Your task to perform on an android device: set the stopwatch Image 0: 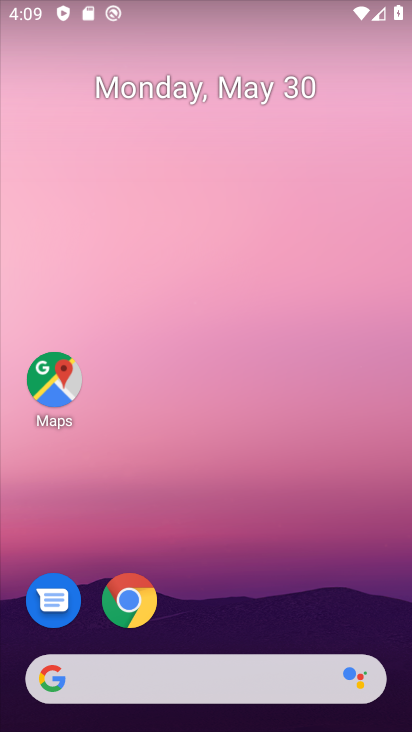
Step 0: drag from (274, 636) to (191, 265)
Your task to perform on an android device: set the stopwatch Image 1: 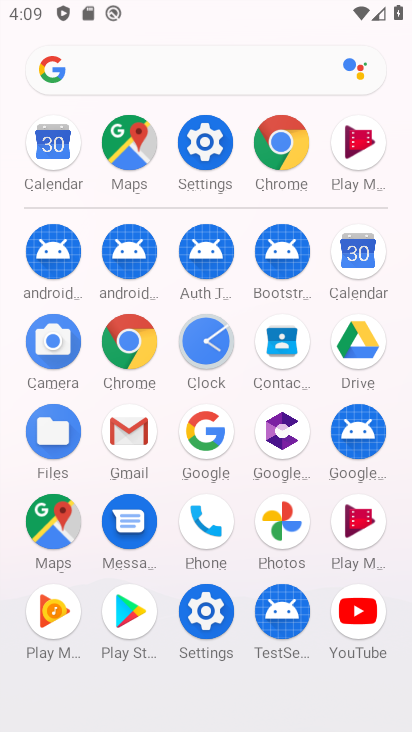
Step 1: click (219, 362)
Your task to perform on an android device: set the stopwatch Image 2: 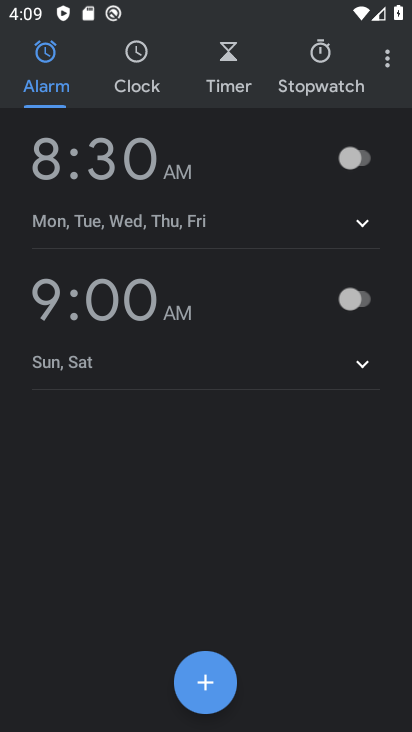
Step 2: click (328, 68)
Your task to perform on an android device: set the stopwatch Image 3: 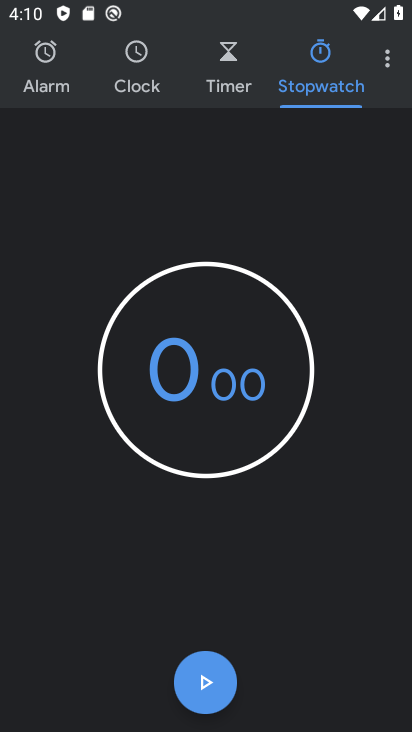
Step 3: type "7"
Your task to perform on an android device: set the stopwatch Image 4: 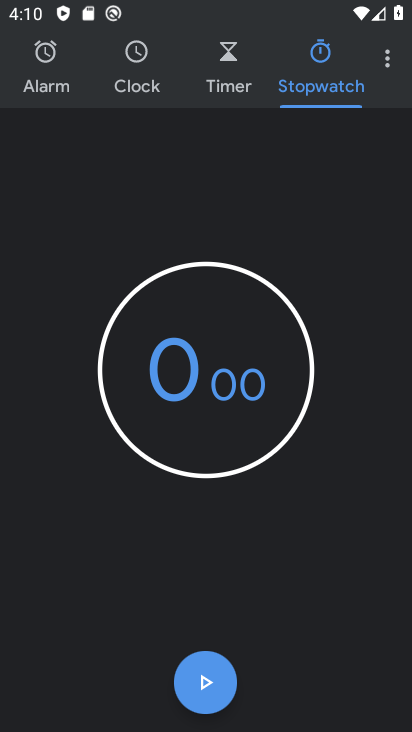
Step 4: click (189, 684)
Your task to perform on an android device: set the stopwatch Image 5: 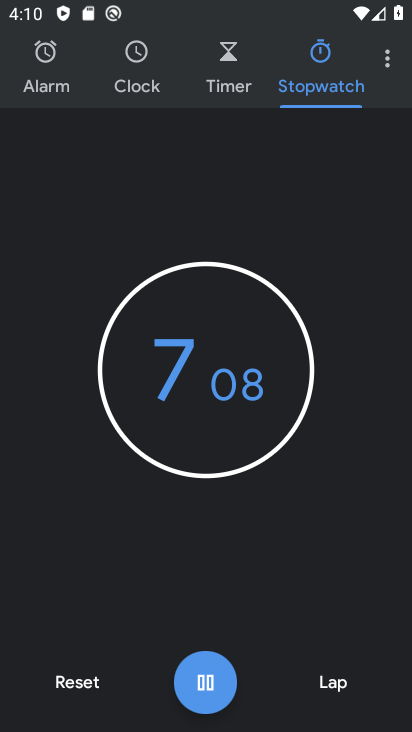
Step 5: task complete